Your task to perform on an android device: Show me productivity apps on the Play Store Image 0: 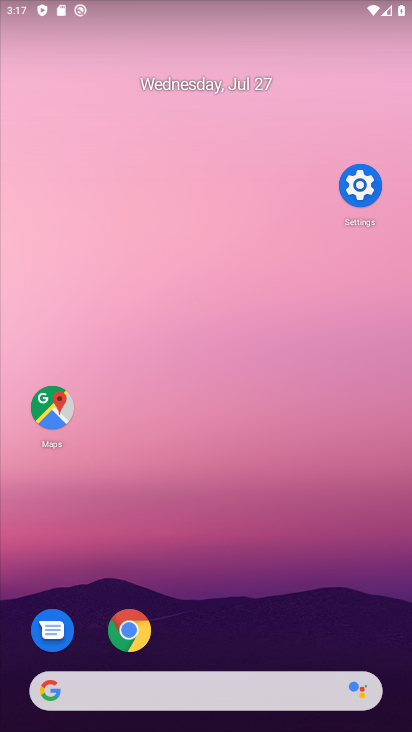
Step 0: press home button
Your task to perform on an android device: Show me productivity apps on the Play Store Image 1: 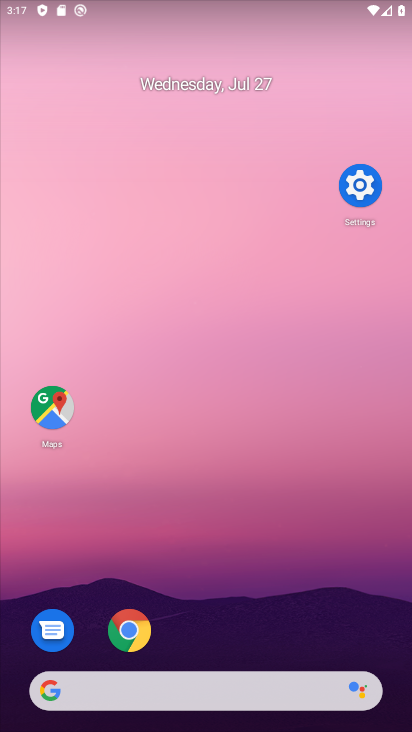
Step 1: drag from (294, 605) to (240, 90)
Your task to perform on an android device: Show me productivity apps on the Play Store Image 2: 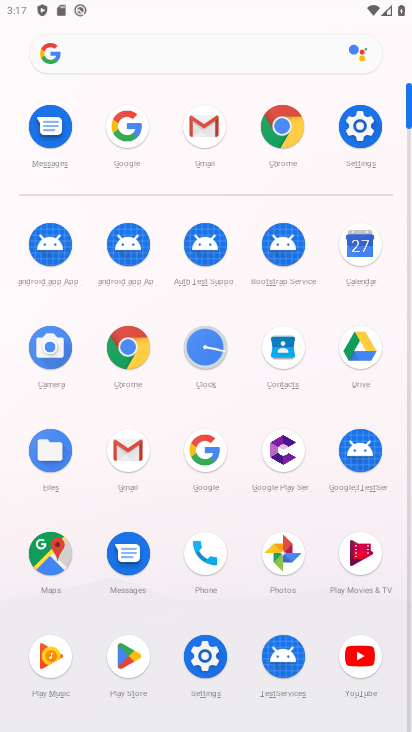
Step 2: click (136, 647)
Your task to perform on an android device: Show me productivity apps on the Play Store Image 3: 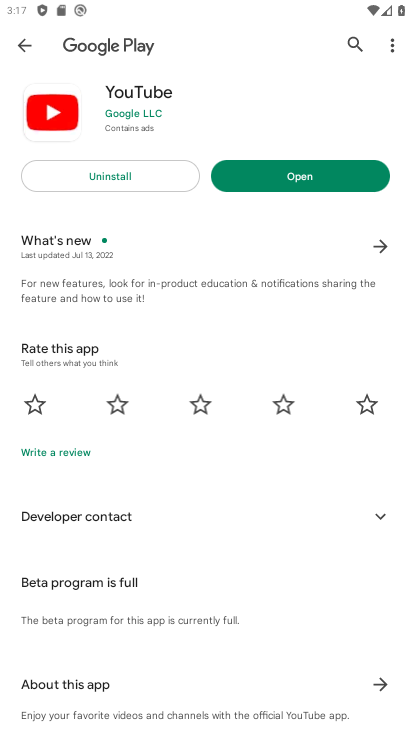
Step 3: click (390, 46)
Your task to perform on an android device: Show me productivity apps on the Play Store Image 4: 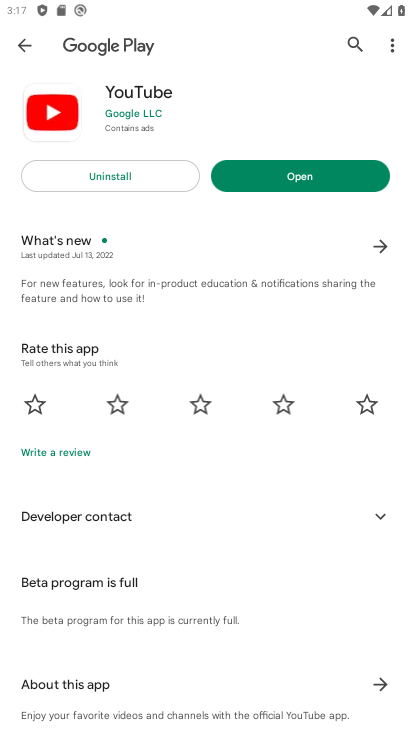
Step 4: click (392, 43)
Your task to perform on an android device: Show me productivity apps on the Play Store Image 5: 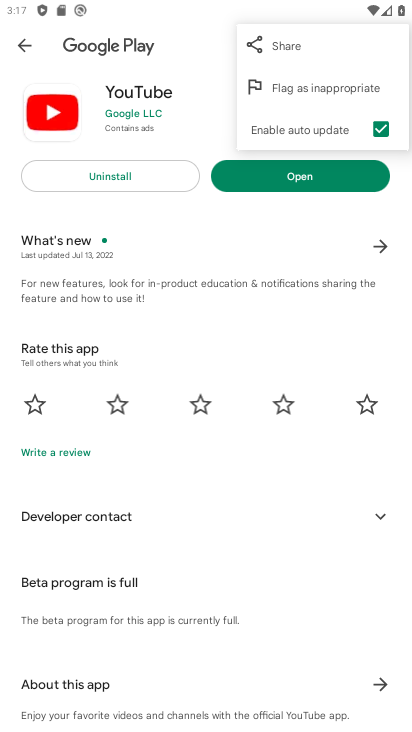
Step 5: click (201, 54)
Your task to perform on an android device: Show me productivity apps on the Play Store Image 6: 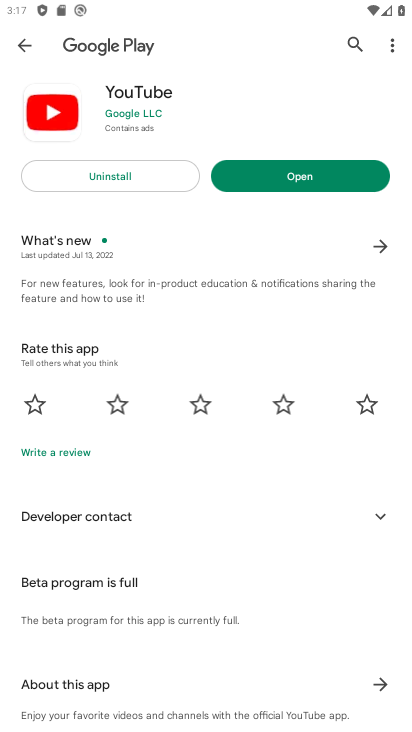
Step 6: click (393, 37)
Your task to perform on an android device: Show me productivity apps on the Play Store Image 7: 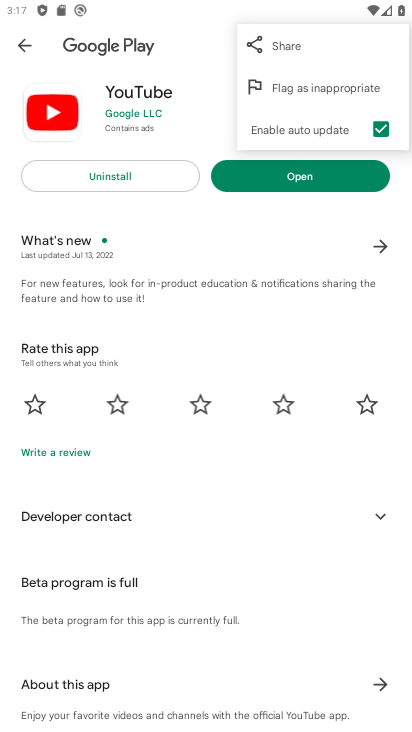
Step 7: click (186, 49)
Your task to perform on an android device: Show me productivity apps on the Play Store Image 8: 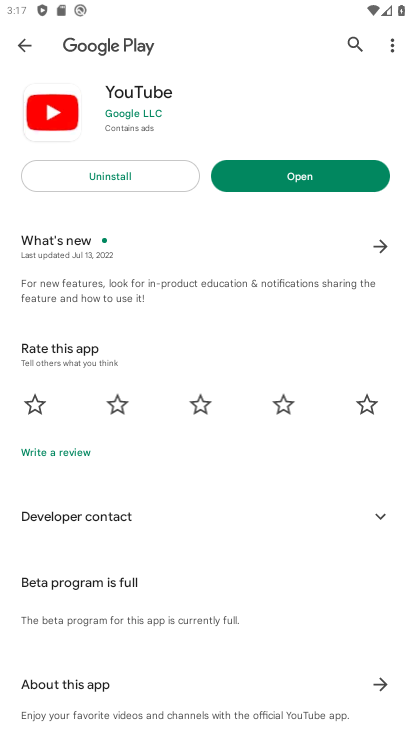
Step 8: click (322, 174)
Your task to perform on an android device: Show me productivity apps on the Play Store Image 9: 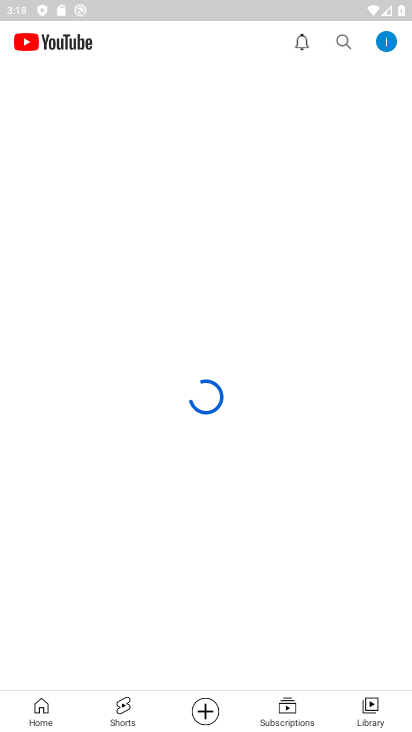
Step 9: press home button
Your task to perform on an android device: Show me productivity apps on the Play Store Image 10: 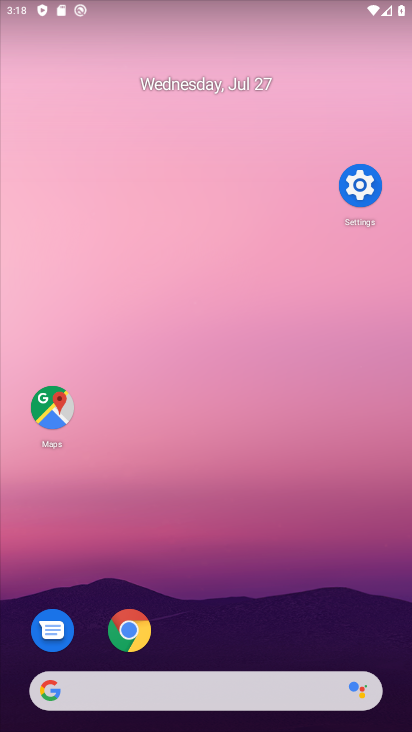
Step 10: drag from (261, 620) to (157, 115)
Your task to perform on an android device: Show me productivity apps on the Play Store Image 11: 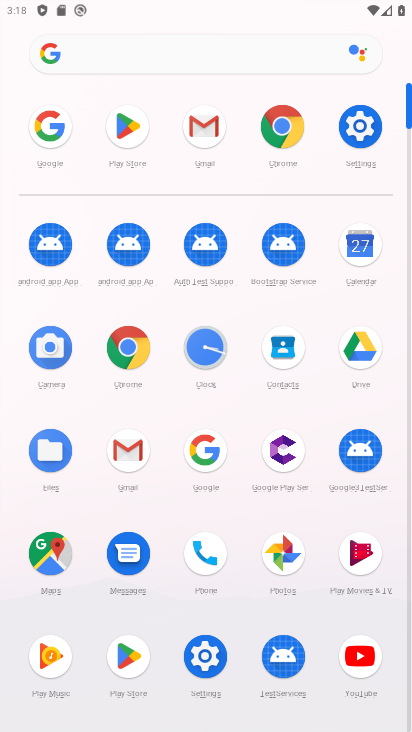
Step 11: click (126, 656)
Your task to perform on an android device: Show me productivity apps on the Play Store Image 12: 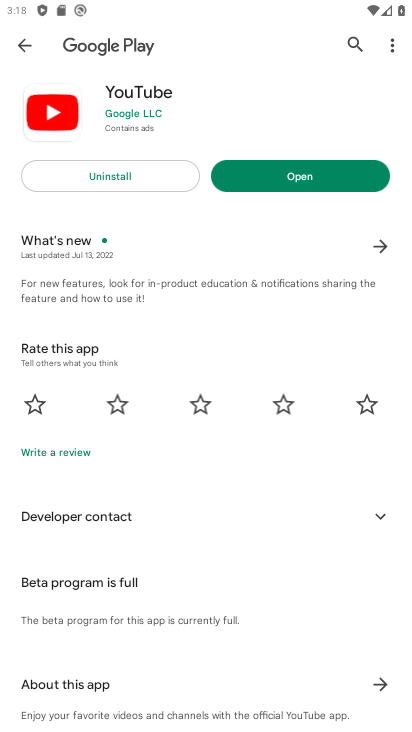
Step 12: click (22, 44)
Your task to perform on an android device: Show me productivity apps on the Play Store Image 13: 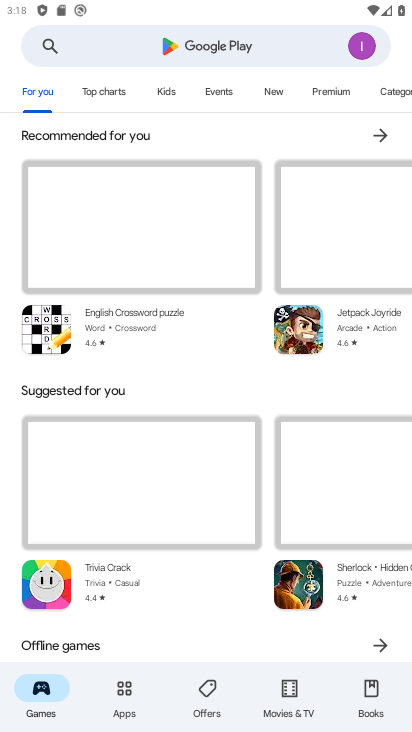
Step 13: click (136, 693)
Your task to perform on an android device: Show me productivity apps on the Play Store Image 14: 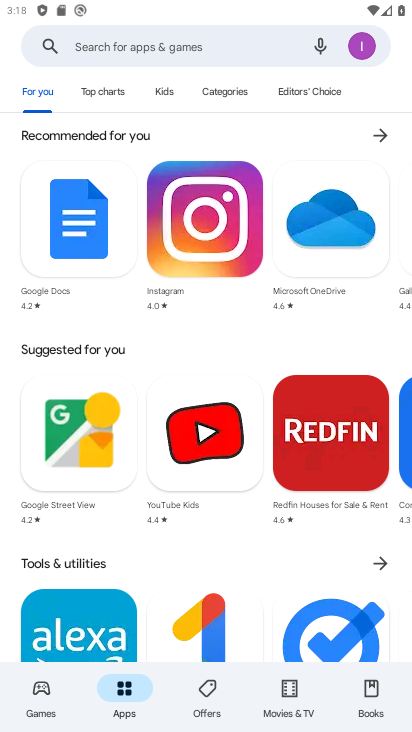
Step 14: click (220, 93)
Your task to perform on an android device: Show me productivity apps on the Play Store Image 15: 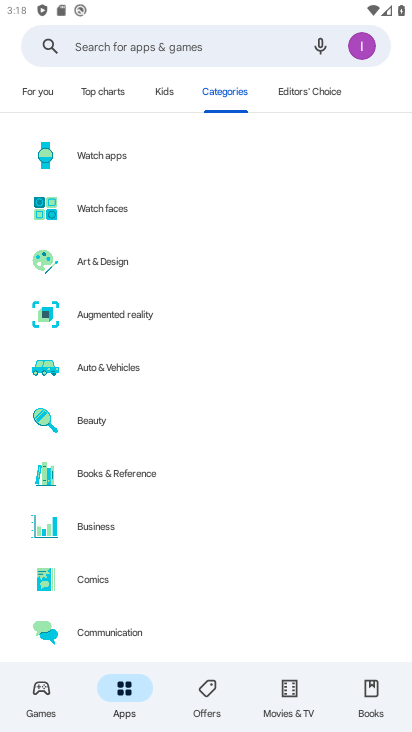
Step 15: drag from (232, 395) to (222, 75)
Your task to perform on an android device: Show me productivity apps on the Play Store Image 16: 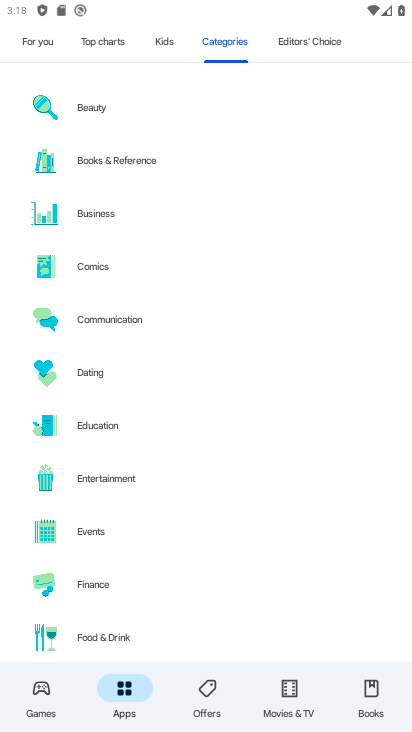
Step 16: drag from (238, 647) to (226, 23)
Your task to perform on an android device: Show me productivity apps on the Play Store Image 17: 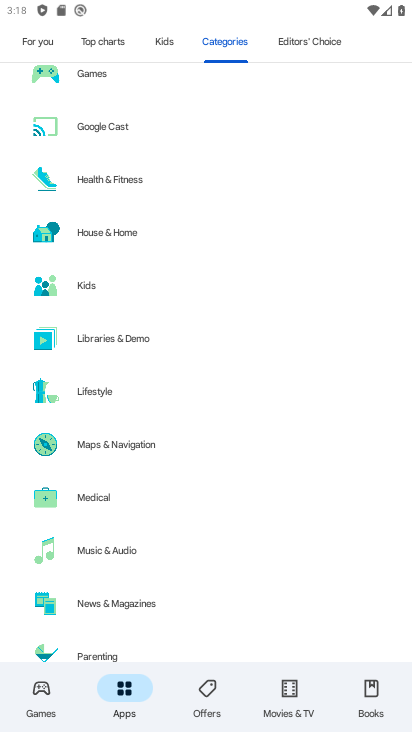
Step 17: drag from (268, 586) to (197, 0)
Your task to perform on an android device: Show me productivity apps on the Play Store Image 18: 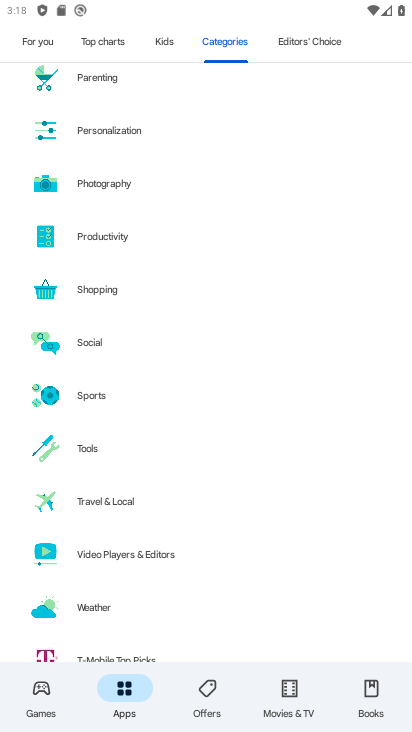
Step 18: click (121, 240)
Your task to perform on an android device: Show me productivity apps on the Play Store Image 19: 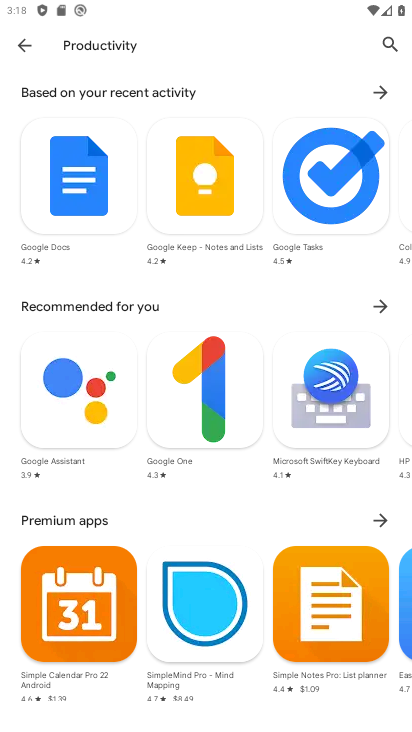
Step 19: task complete